Your task to perform on an android device: turn on priority inbox in the gmail app Image 0: 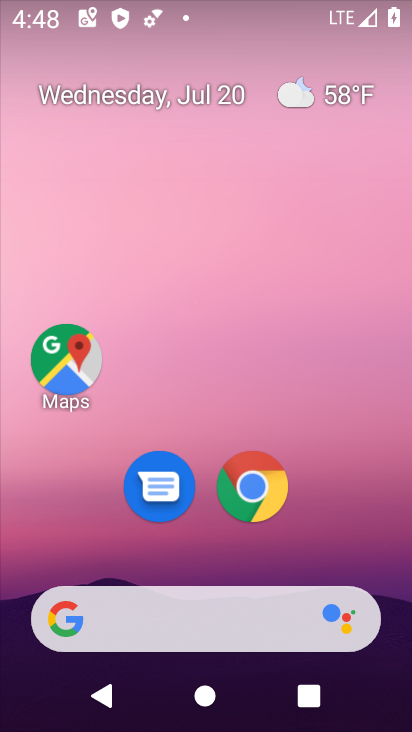
Step 0: drag from (174, 554) to (240, 3)
Your task to perform on an android device: turn on priority inbox in the gmail app Image 1: 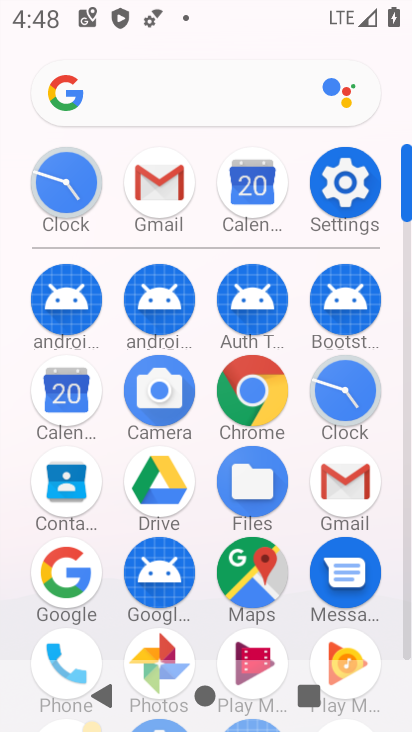
Step 1: click (155, 183)
Your task to perform on an android device: turn on priority inbox in the gmail app Image 2: 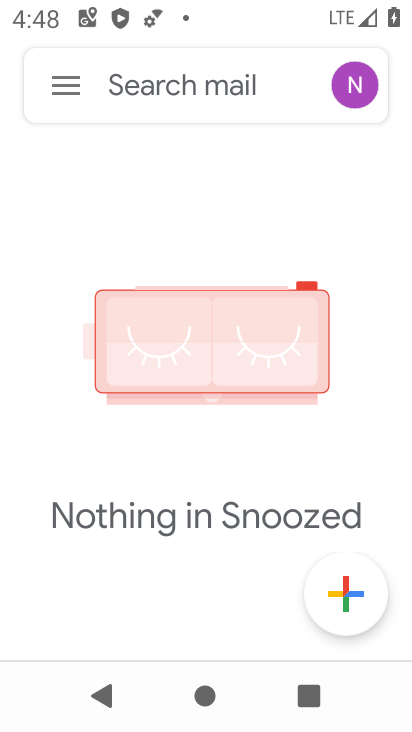
Step 2: click (73, 96)
Your task to perform on an android device: turn on priority inbox in the gmail app Image 3: 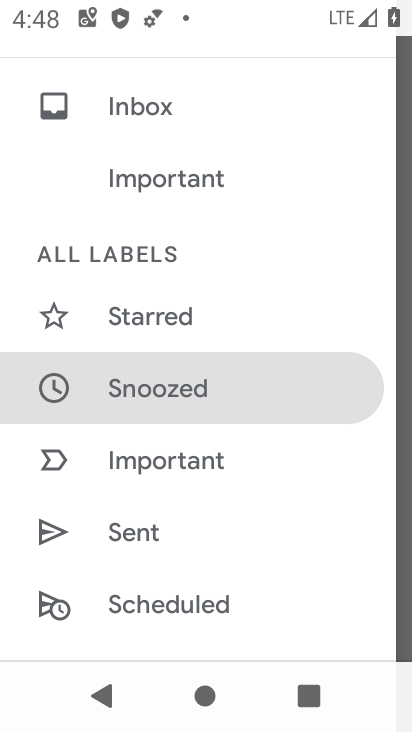
Step 3: drag from (182, 616) to (261, 38)
Your task to perform on an android device: turn on priority inbox in the gmail app Image 4: 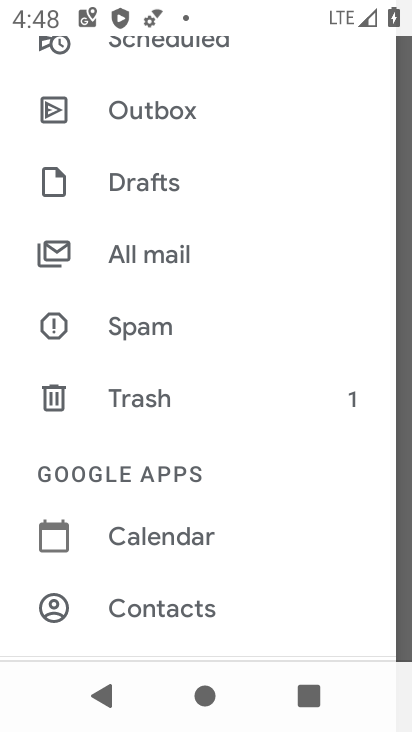
Step 4: drag from (157, 546) to (197, 5)
Your task to perform on an android device: turn on priority inbox in the gmail app Image 5: 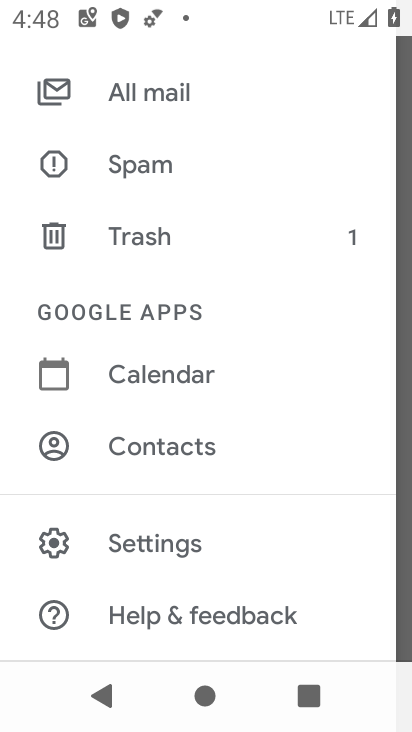
Step 5: click (143, 522)
Your task to perform on an android device: turn on priority inbox in the gmail app Image 6: 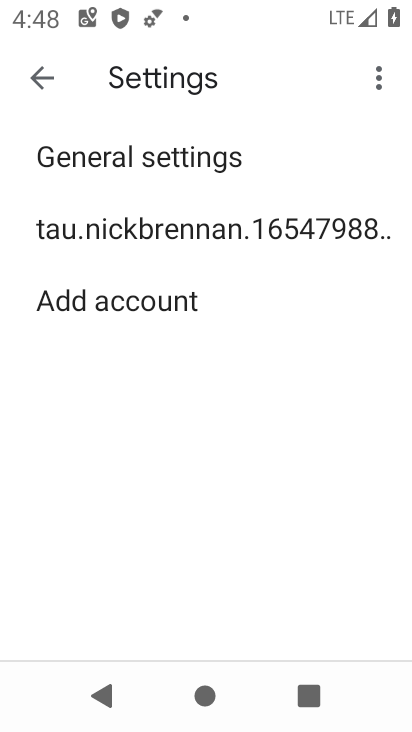
Step 6: click (156, 221)
Your task to perform on an android device: turn on priority inbox in the gmail app Image 7: 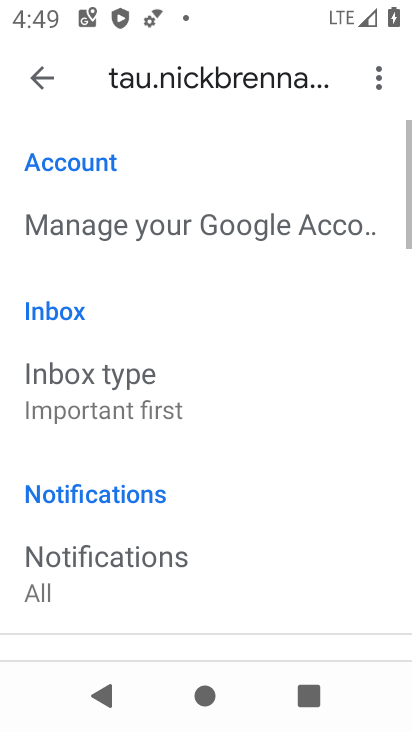
Step 7: drag from (126, 610) to (227, 80)
Your task to perform on an android device: turn on priority inbox in the gmail app Image 8: 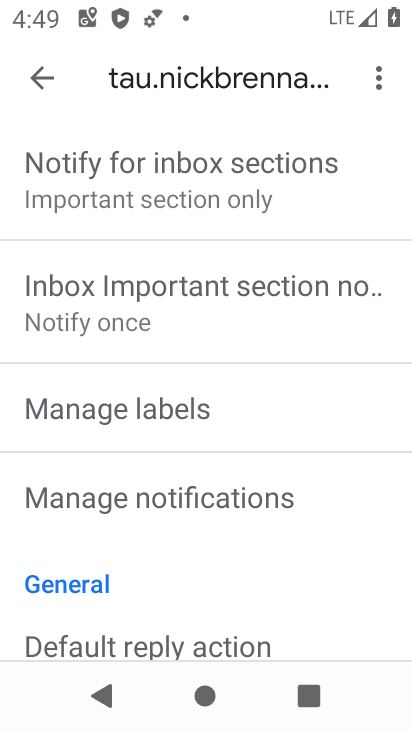
Step 8: drag from (179, 188) to (157, 690)
Your task to perform on an android device: turn on priority inbox in the gmail app Image 9: 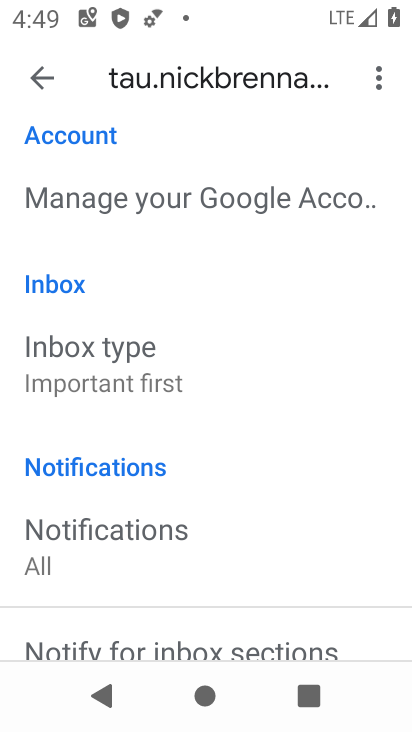
Step 9: click (89, 361)
Your task to perform on an android device: turn on priority inbox in the gmail app Image 10: 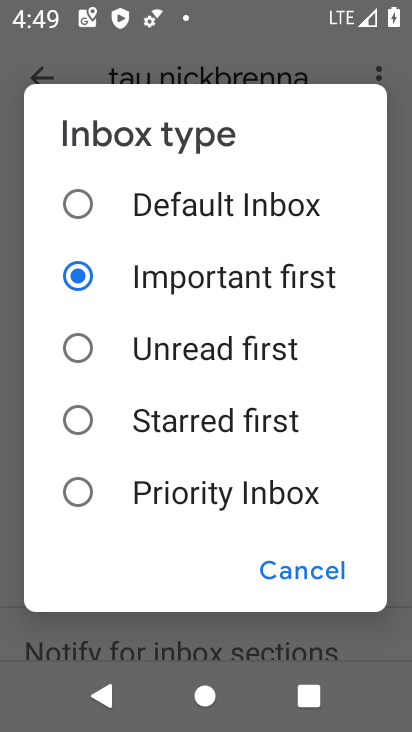
Step 10: click (79, 496)
Your task to perform on an android device: turn on priority inbox in the gmail app Image 11: 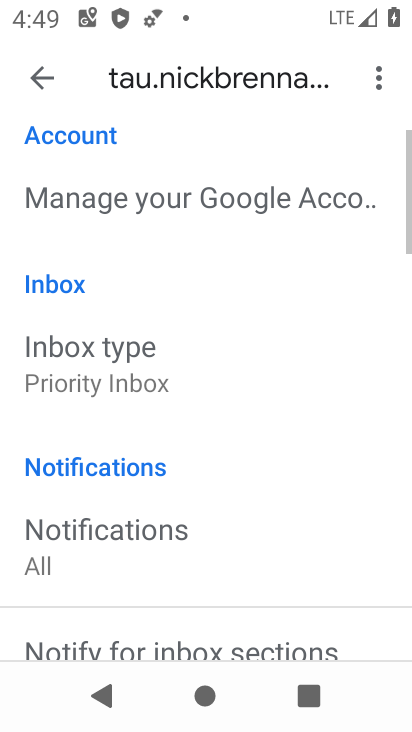
Step 11: task complete